Your task to perform on an android device: What is the recent news? Image 0: 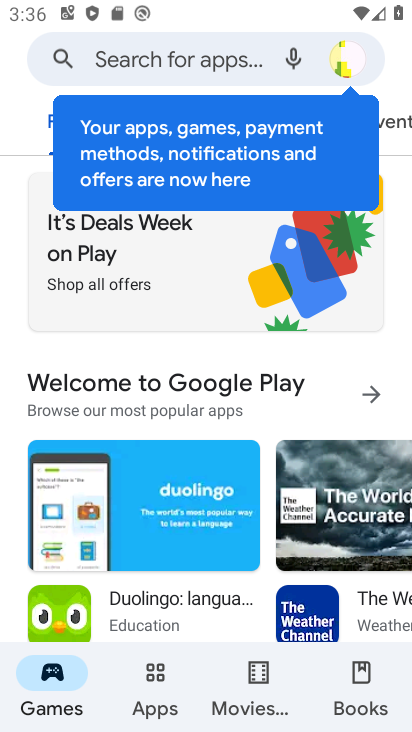
Step 0: press back button
Your task to perform on an android device: What is the recent news? Image 1: 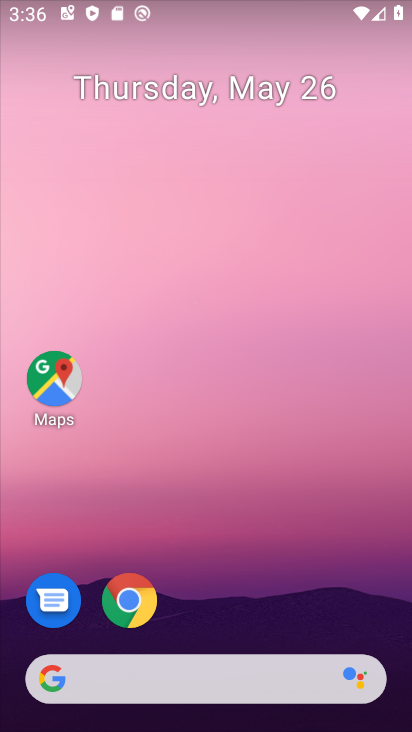
Step 1: drag from (261, 458) to (248, 24)
Your task to perform on an android device: What is the recent news? Image 2: 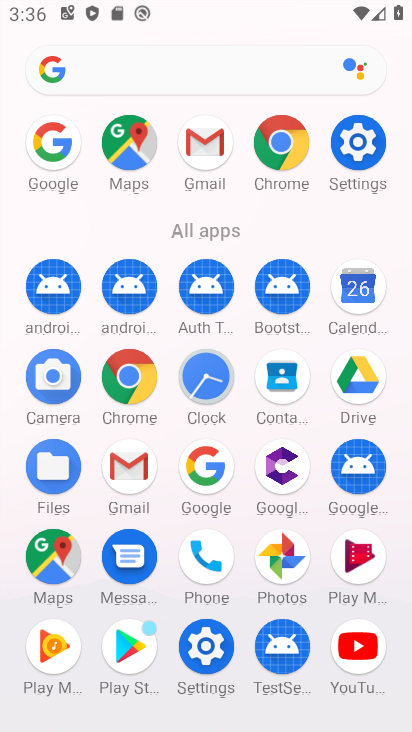
Step 2: drag from (10, 591) to (13, 301)
Your task to perform on an android device: What is the recent news? Image 3: 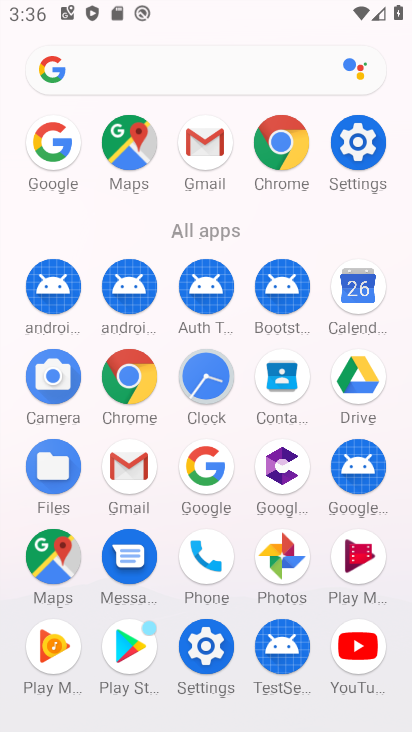
Step 3: click (133, 373)
Your task to perform on an android device: What is the recent news? Image 4: 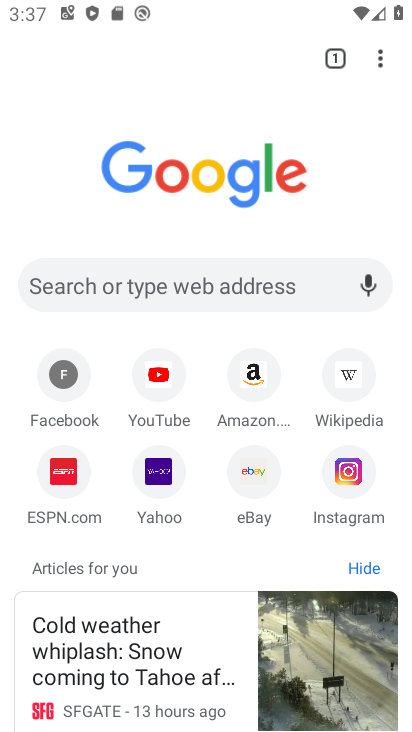
Step 4: click (206, 286)
Your task to perform on an android device: What is the recent news? Image 5: 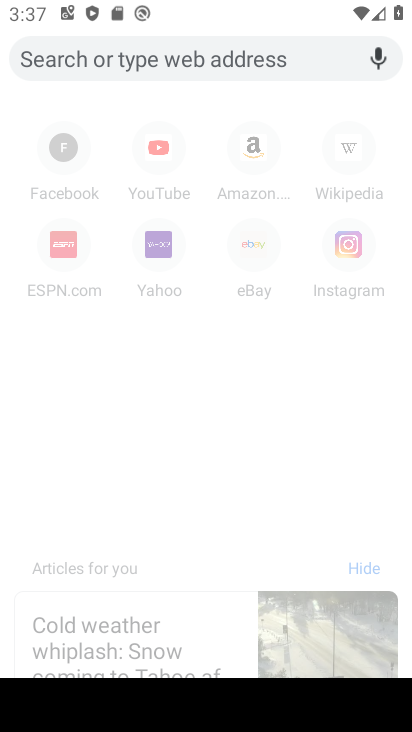
Step 5: type "What is the recent news?"
Your task to perform on an android device: What is the recent news? Image 6: 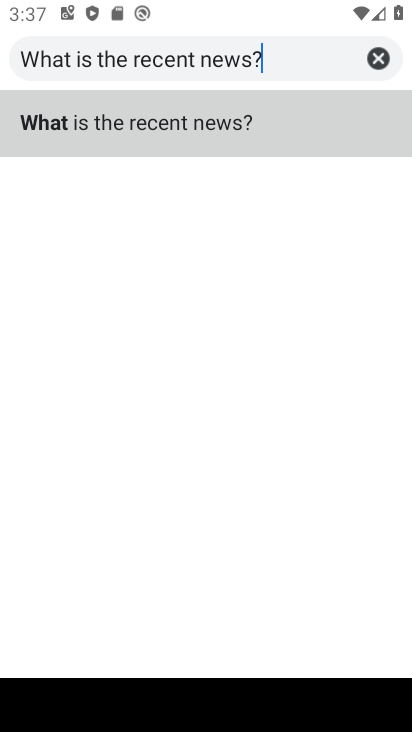
Step 6: type ""
Your task to perform on an android device: What is the recent news? Image 7: 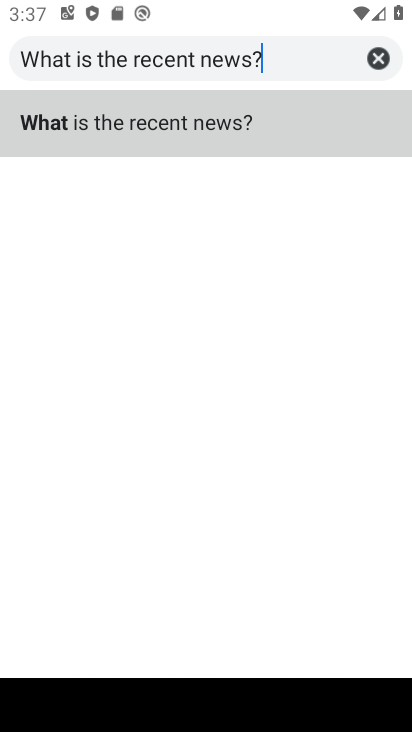
Step 7: click (217, 125)
Your task to perform on an android device: What is the recent news? Image 8: 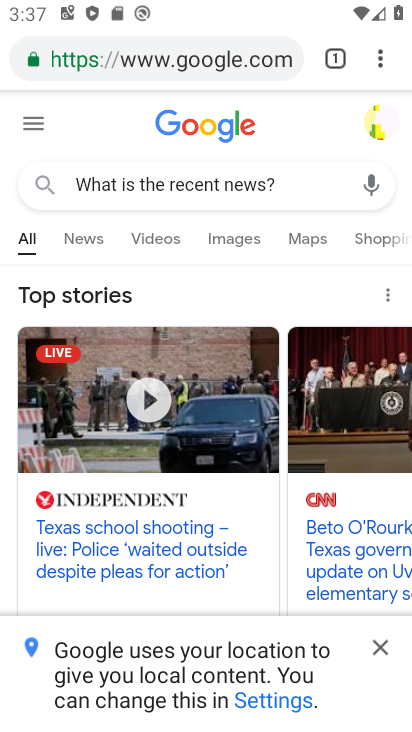
Step 8: task complete